Your task to perform on an android device: Show me productivity apps on the Play Store Image 0: 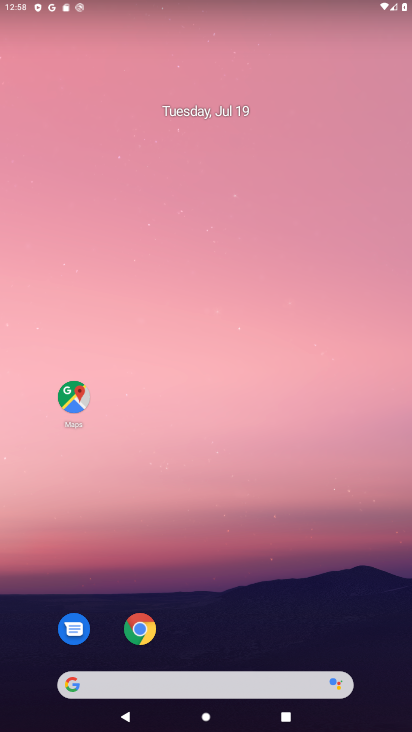
Step 0: drag from (264, 595) to (236, 171)
Your task to perform on an android device: Show me productivity apps on the Play Store Image 1: 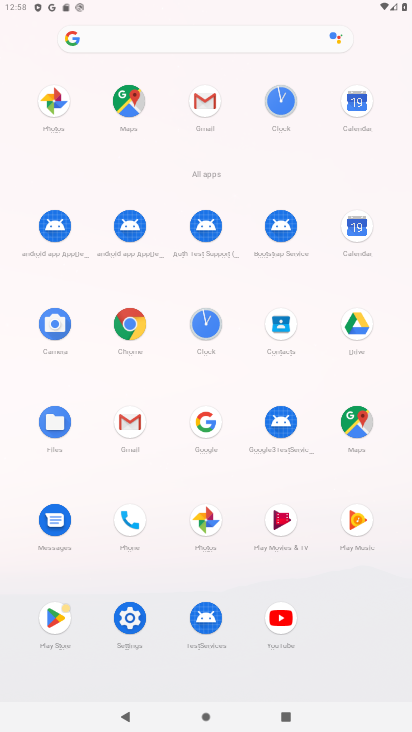
Step 1: click (52, 608)
Your task to perform on an android device: Show me productivity apps on the Play Store Image 2: 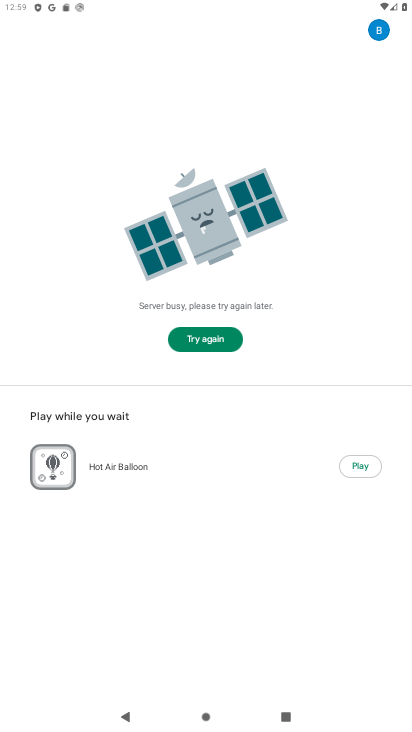
Step 2: click (196, 331)
Your task to perform on an android device: Show me productivity apps on the Play Store Image 3: 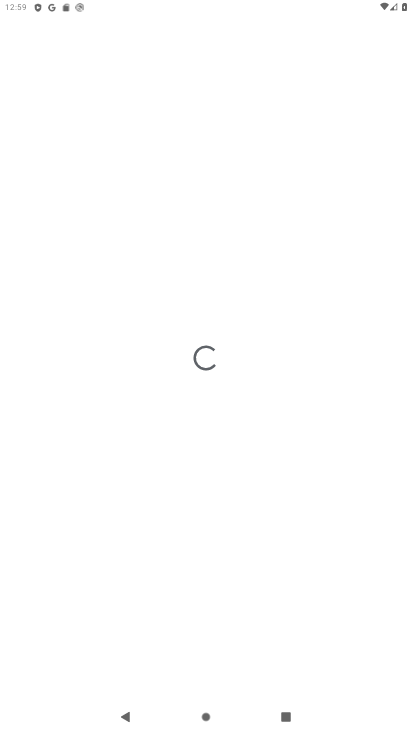
Step 3: click (213, 335)
Your task to perform on an android device: Show me productivity apps on the Play Store Image 4: 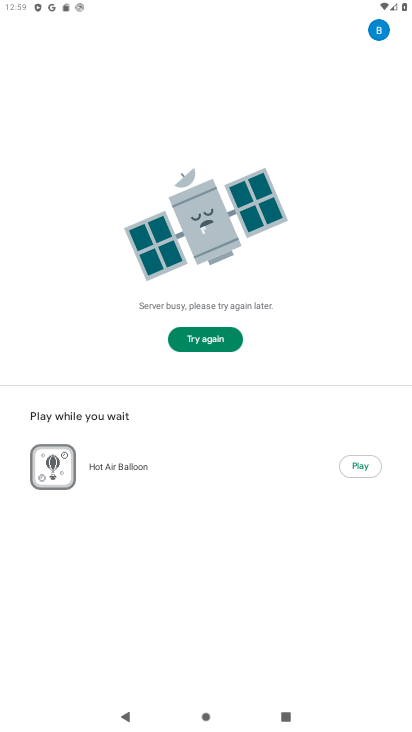
Step 4: task complete